Your task to perform on an android device: Open Android settings Image 0: 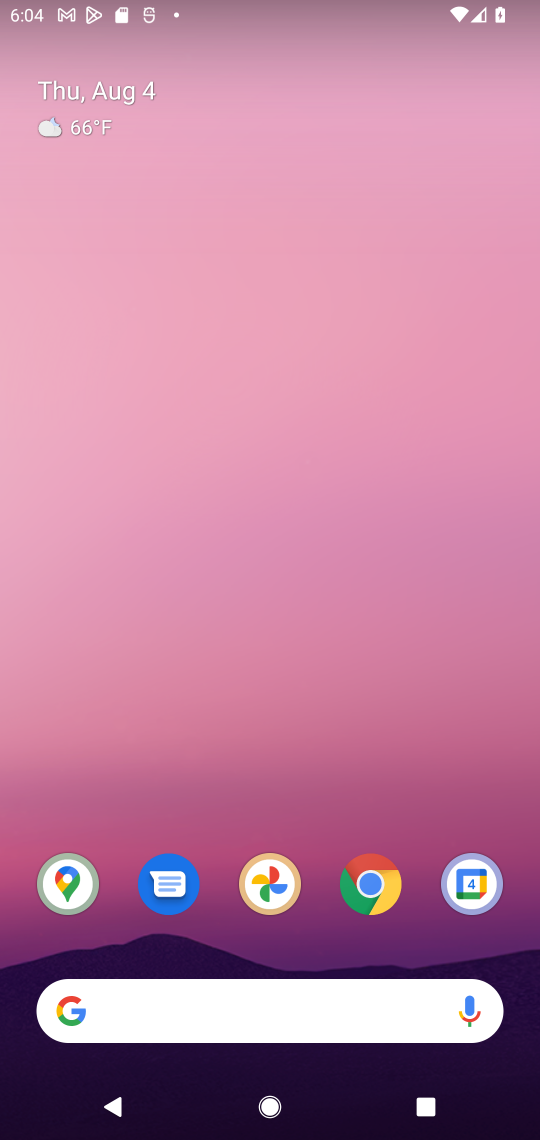
Step 0: click (366, 887)
Your task to perform on an android device: Open Android settings Image 1: 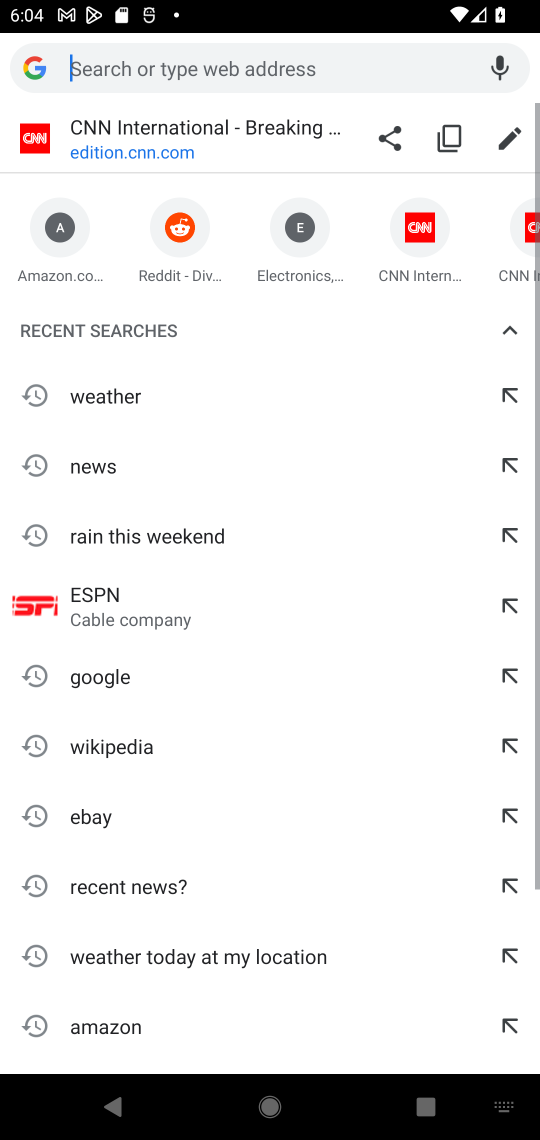
Step 1: task complete